Your task to perform on an android device: set the stopwatch Image 0: 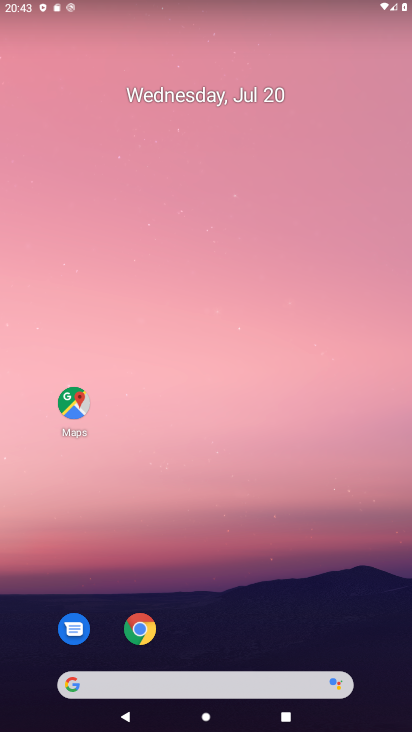
Step 0: drag from (201, 580) to (201, 86)
Your task to perform on an android device: set the stopwatch Image 1: 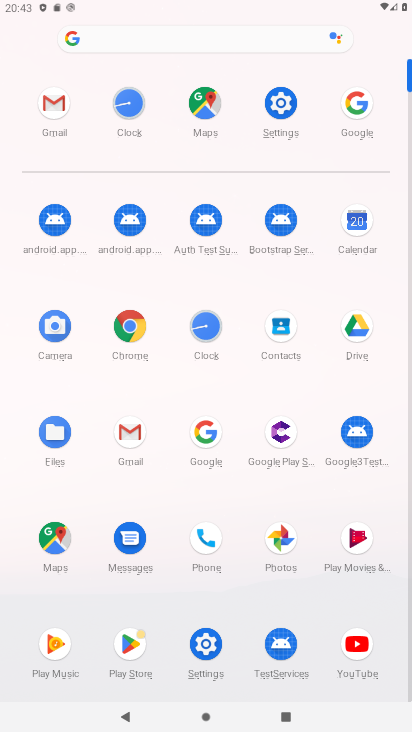
Step 1: click (208, 323)
Your task to perform on an android device: set the stopwatch Image 2: 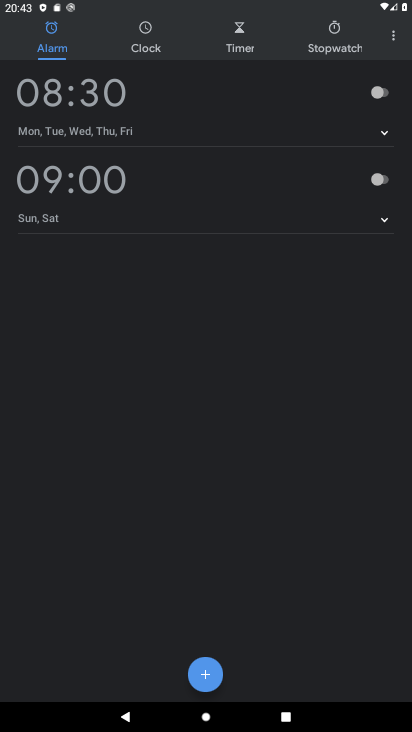
Step 2: click (331, 29)
Your task to perform on an android device: set the stopwatch Image 3: 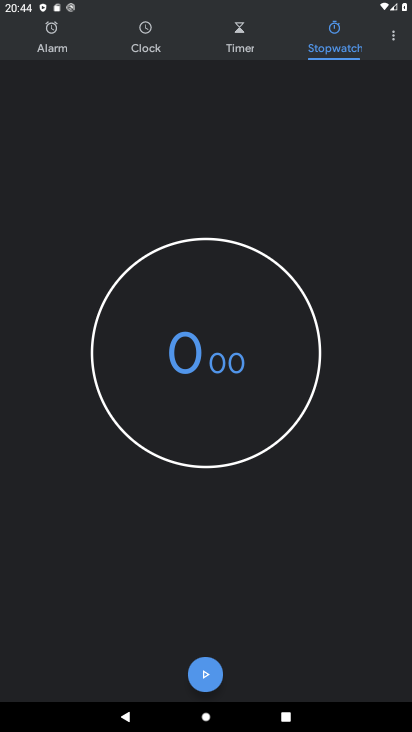
Step 3: task complete